Your task to perform on an android device: What's on my calendar tomorrow? Image 0: 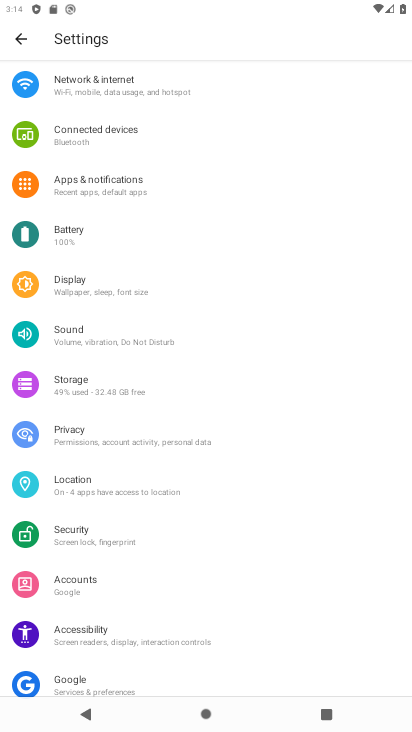
Step 0: press home button
Your task to perform on an android device: What's on my calendar tomorrow? Image 1: 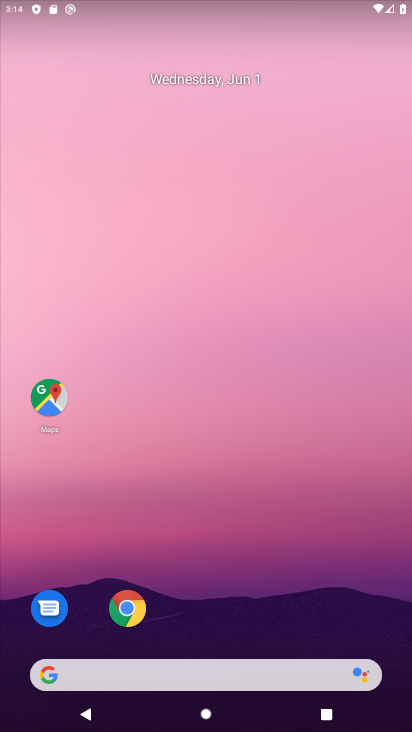
Step 1: drag from (181, 675) to (170, 321)
Your task to perform on an android device: What's on my calendar tomorrow? Image 2: 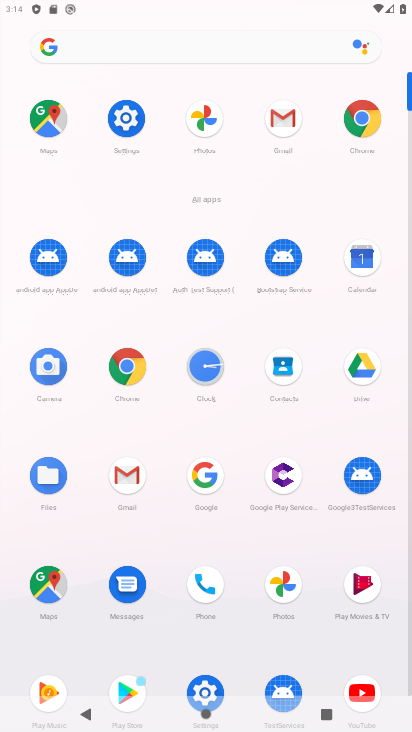
Step 2: click (355, 261)
Your task to perform on an android device: What's on my calendar tomorrow? Image 3: 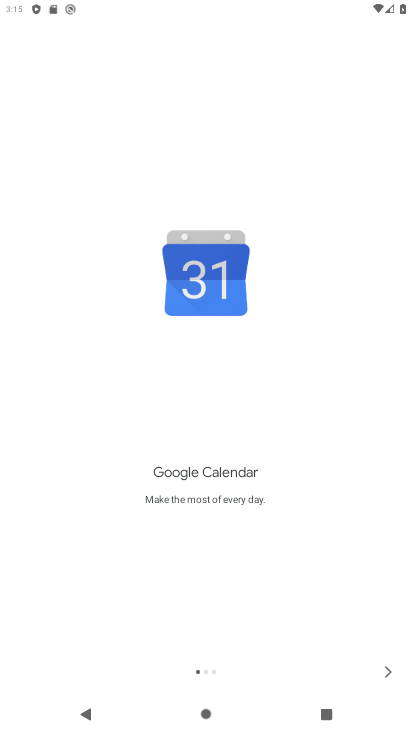
Step 3: click (390, 667)
Your task to perform on an android device: What's on my calendar tomorrow? Image 4: 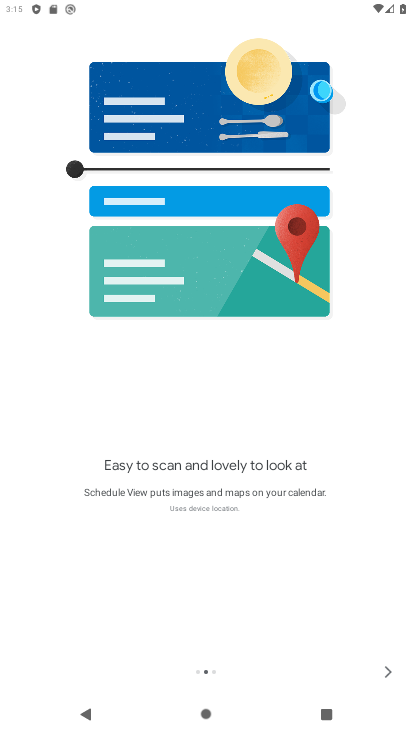
Step 4: click (390, 667)
Your task to perform on an android device: What's on my calendar tomorrow? Image 5: 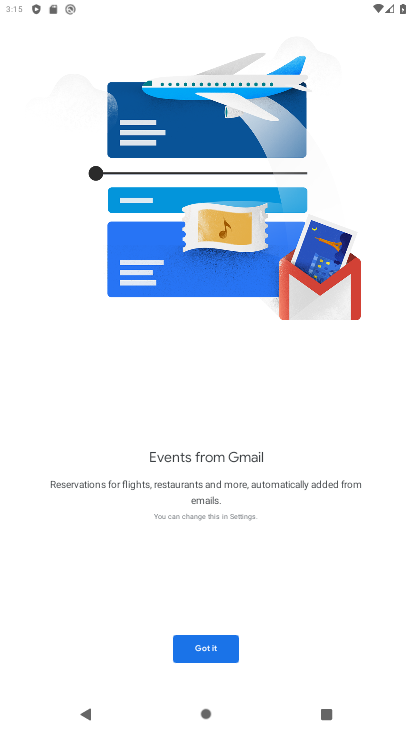
Step 5: click (223, 647)
Your task to perform on an android device: What's on my calendar tomorrow? Image 6: 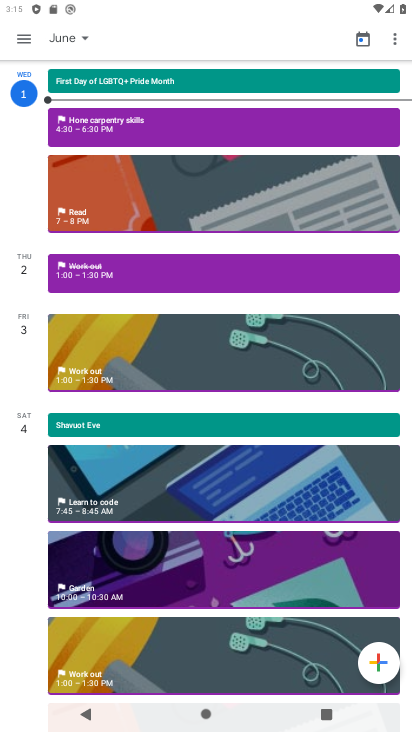
Step 6: task complete